Your task to perform on an android device: toggle data saver in the chrome app Image 0: 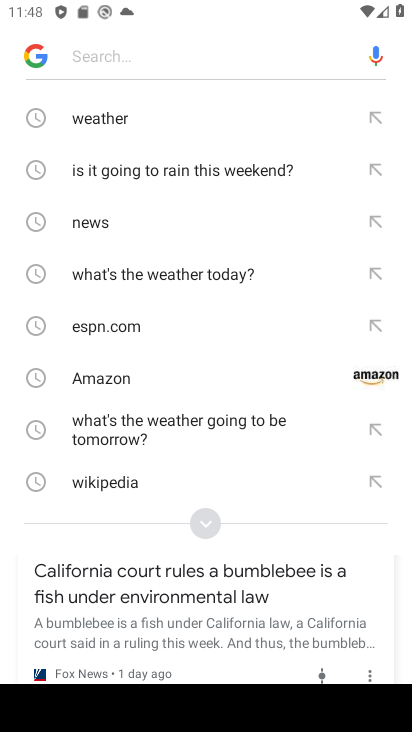
Step 0: press back button
Your task to perform on an android device: toggle data saver in the chrome app Image 1: 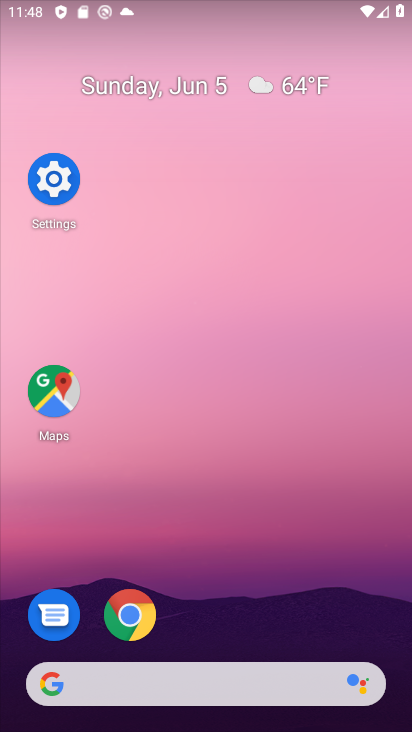
Step 1: click (134, 622)
Your task to perform on an android device: toggle data saver in the chrome app Image 2: 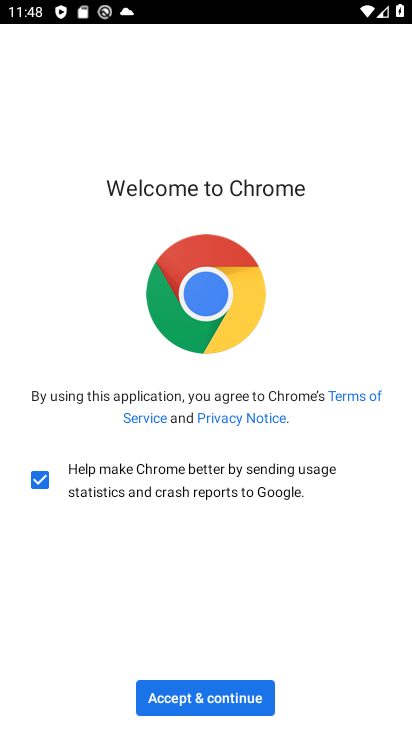
Step 2: click (215, 686)
Your task to perform on an android device: toggle data saver in the chrome app Image 3: 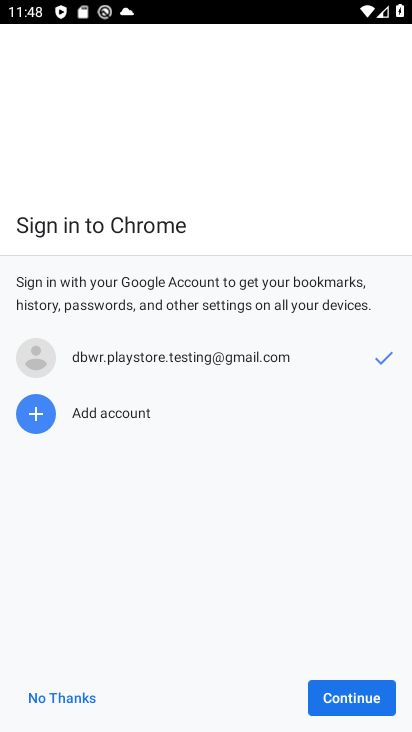
Step 3: click (374, 685)
Your task to perform on an android device: toggle data saver in the chrome app Image 4: 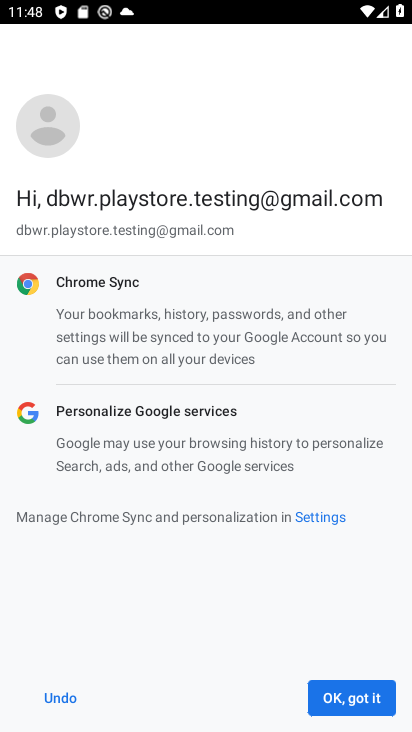
Step 4: click (376, 695)
Your task to perform on an android device: toggle data saver in the chrome app Image 5: 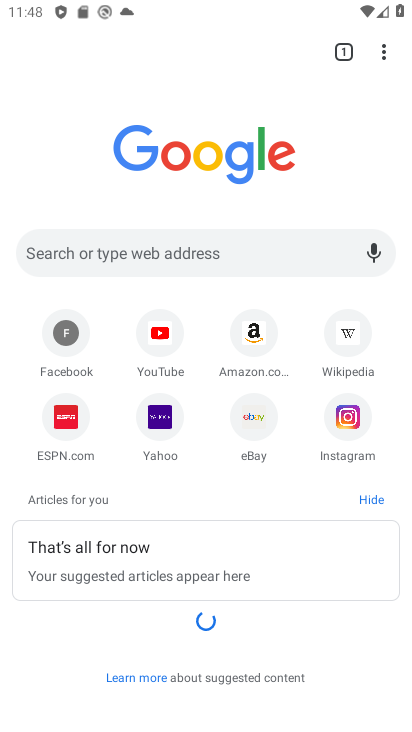
Step 5: click (393, 32)
Your task to perform on an android device: toggle data saver in the chrome app Image 6: 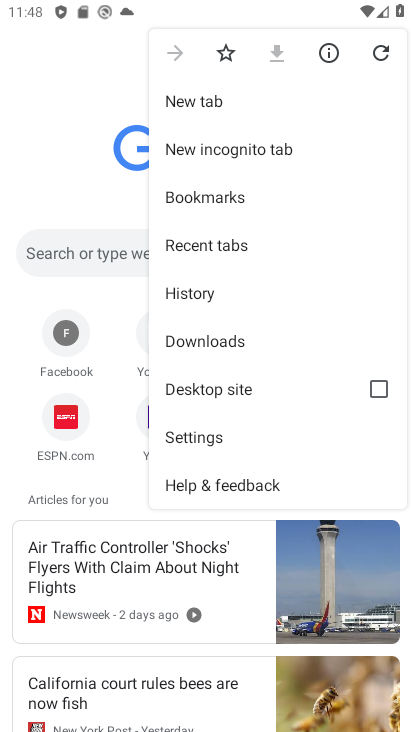
Step 6: click (252, 441)
Your task to perform on an android device: toggle data saver in the chrome app Image 7: 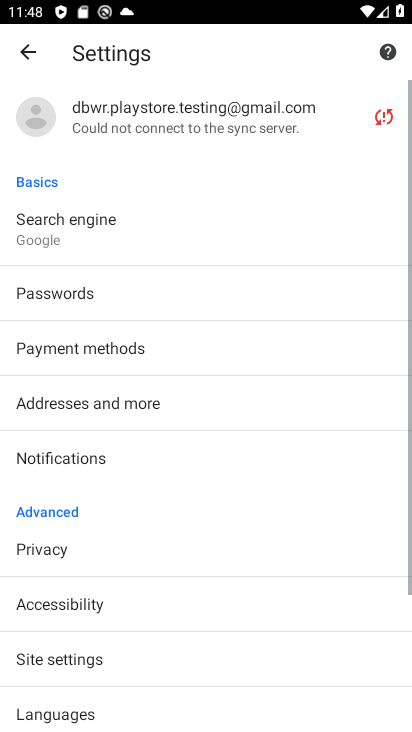
Step 7: drag from (198, 560) to (243, 230)
Your task to perform on an android device: toggle data saver in the chrome app Image 8: 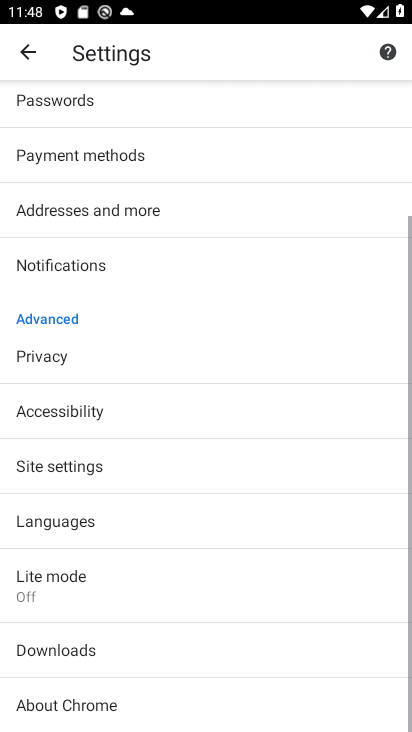
Step 8: click (136, 569)
Your task to perform on an android device: toggle data saver in the chrome app Image 9: 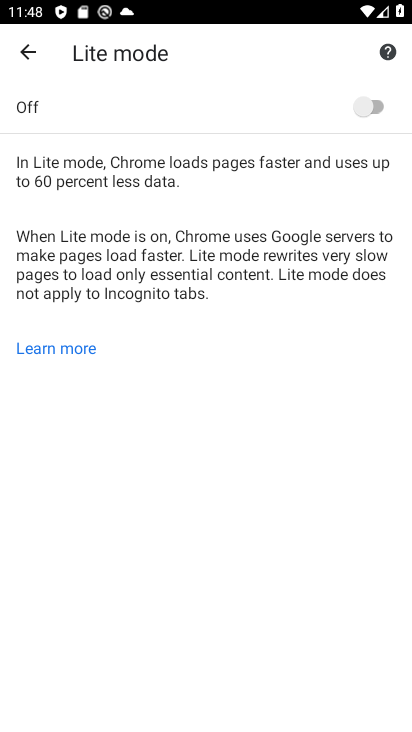
Step 9: click (345, 109)
Your task to perform on an android device: toggle data saver in the chrome app Image 10: 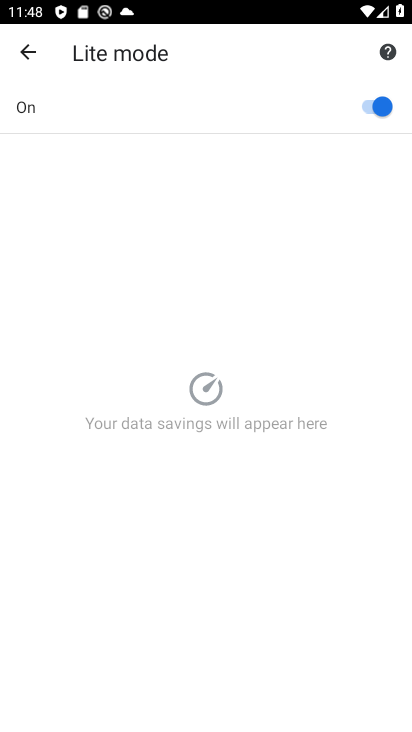
Step 10: task complete